Your task to perform on an android device: Open ESPN.com Image 0: 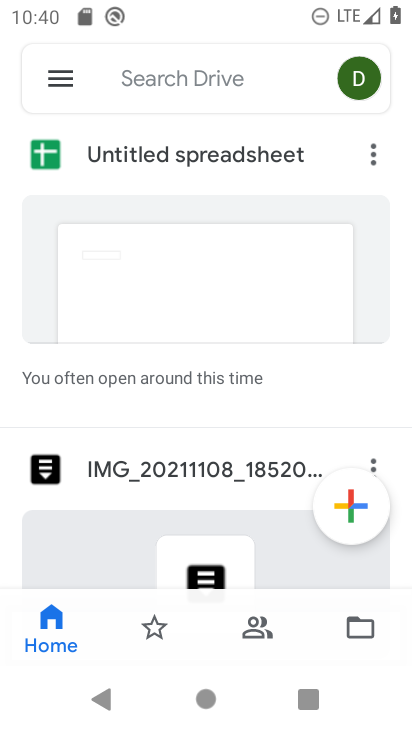
Step 0: press home button
Your task to perform on an android device: Open ESPN.com Image 1: 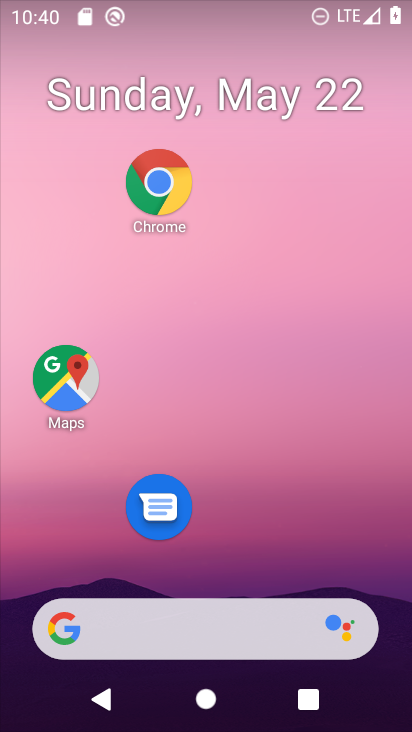
Step 1: click (152, 633)
Your task to perform on an android device: Open ESPN.com Image 2: 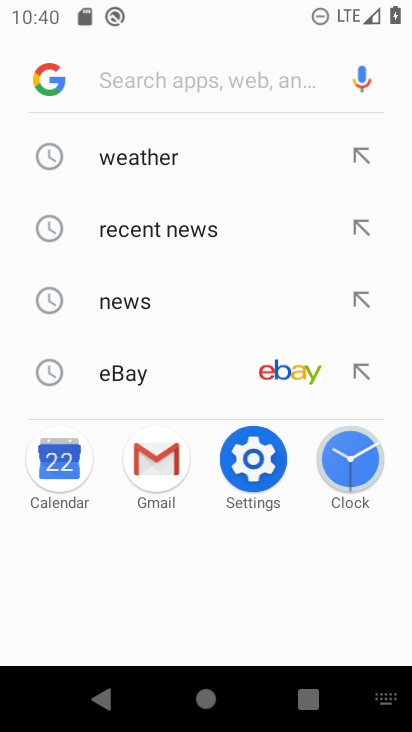
Step 2: type "espn.com"
Your task to perform on an android device: Open ESPN.com Image 3: 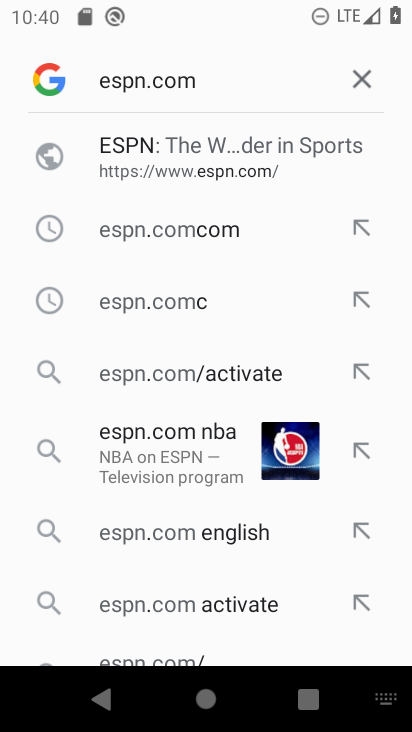
Step 3: click (258, 164)
Your task to perform on an android device: Open ESPN.com Image 4: 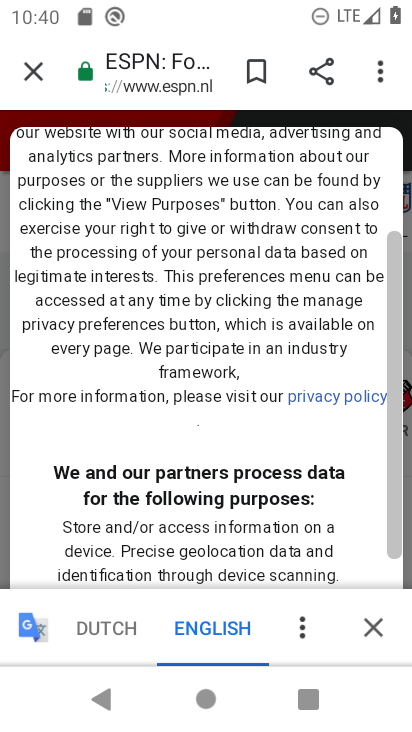
Step 4: task complete